Your task to perform on an android device: change your default location settings in chrome Image 0: 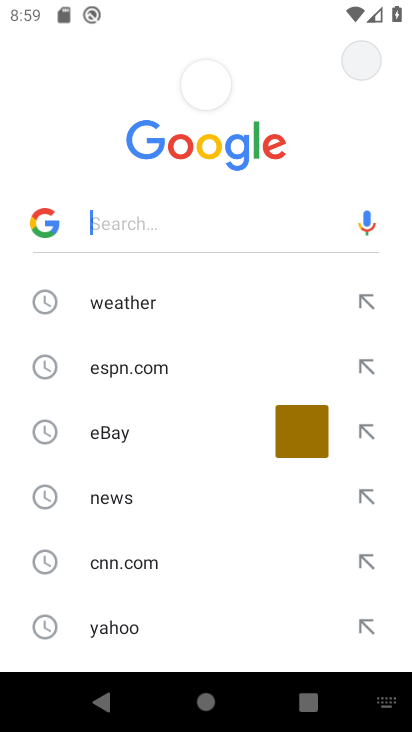
Step 0: press home button
Your task to perform on an android device: change your default location settings in chrome Image 1: 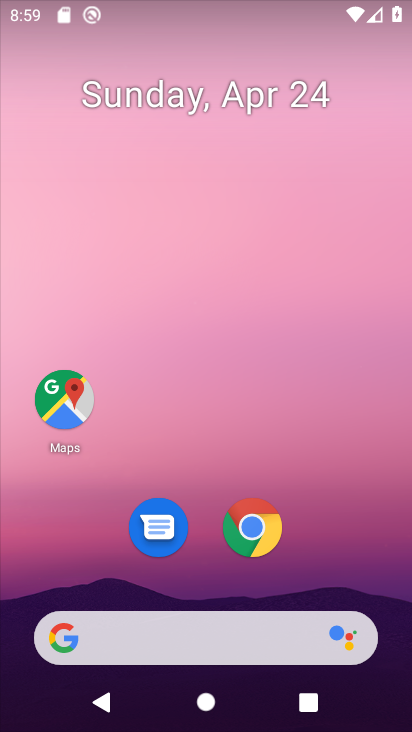
Step 1: drag from (402, 599) to (189, 52)
Your task to perform on an android device: change your default location settings in chrome Image 2: 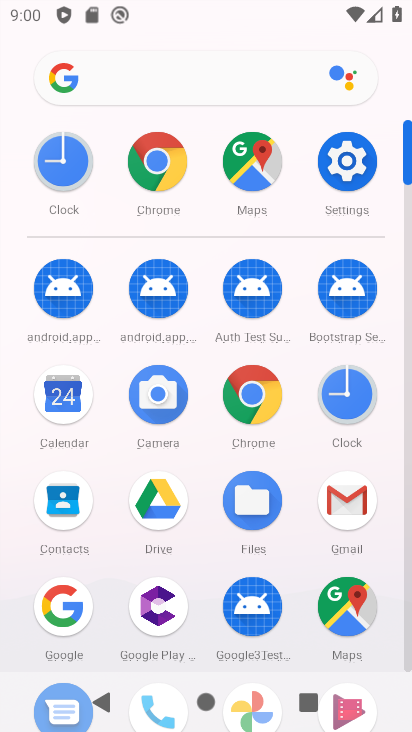
Step 2: click (253, 411)
Your task to perform on an android device: change your default location settings in chrome Image 3: 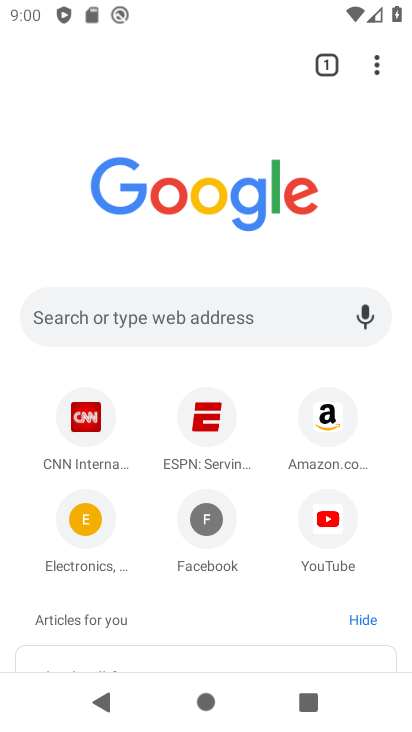
Step 3: click (384, 57)
Your task to perform on an android device: change your default location settings in chrome Image 4: 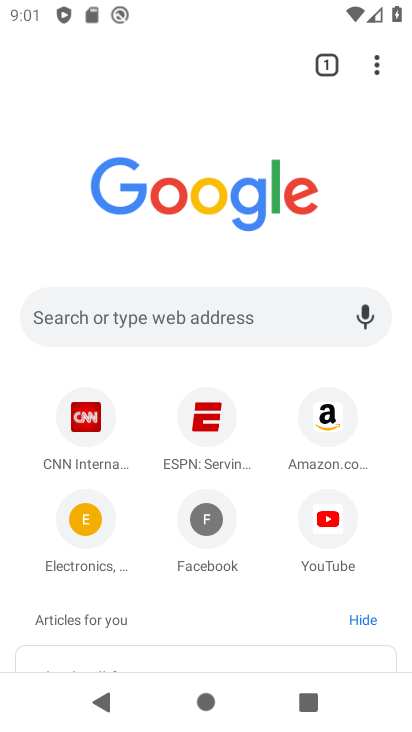
Step 4: click (378, 59)
Your task to perform on an android device: change your default location settings in chrome Image 5: 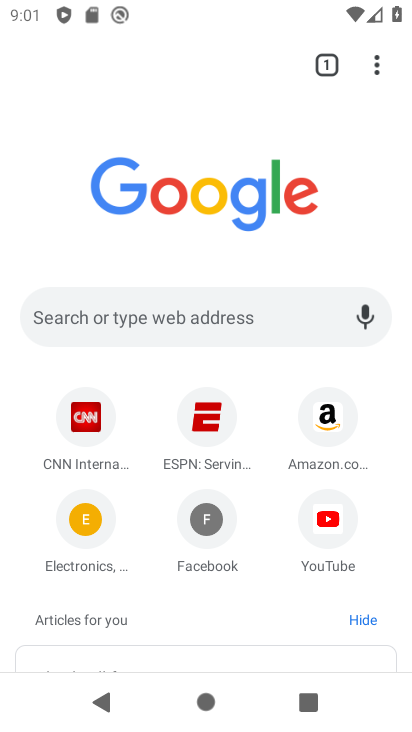
Step 5: click (378, 59)
Your task to perform on an android device: change your default location settings in chrome Image 6: 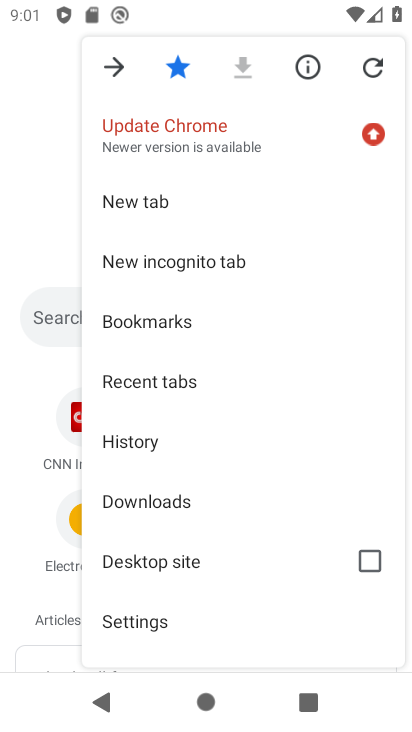
Step 6: click (182, 623)
Your task to perform on an android device: change your default location settings in chrome Image 7: 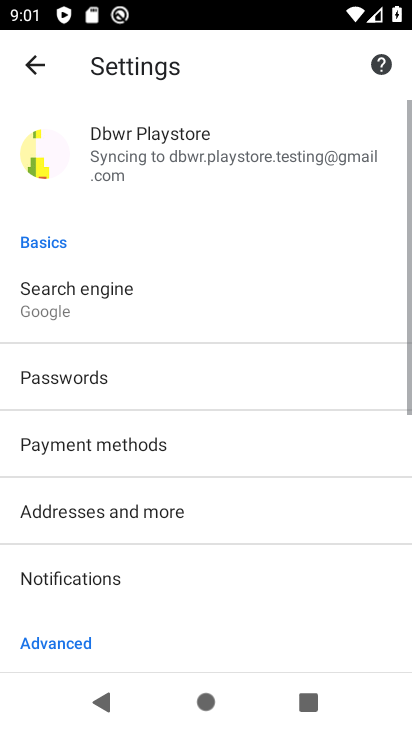
Step 7: click (86, 312)
Your task to perform on an android device: change your default location settings in chrome Image 8: 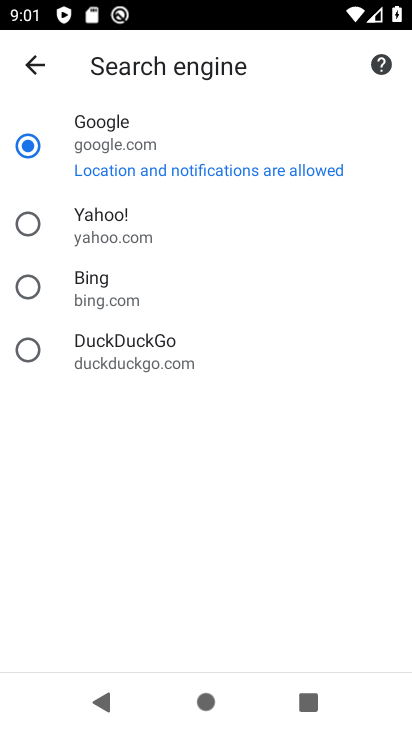
Step 8: click (123, 230)
Your task to perform on an android device: change your default location settings in chrome Image 9: 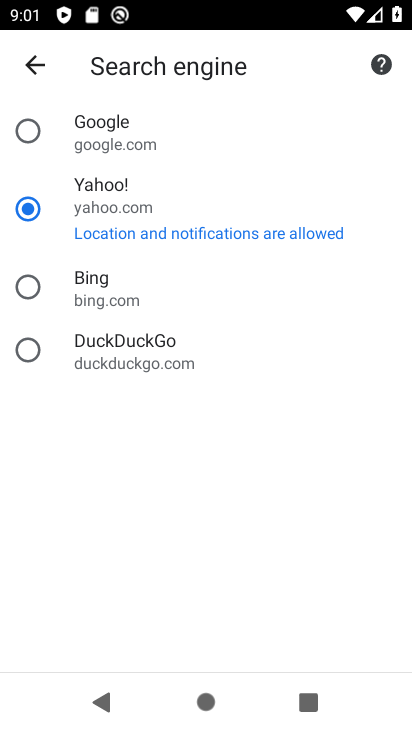
Step 9: task complete